Your task to perform on an android device: turn off airplane mode Image 0: 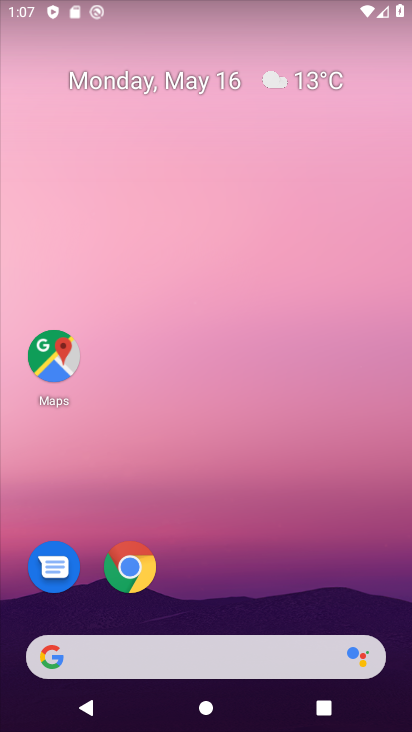
Step 0: drag from (295, 515) to (207, 124)
Your task to perform on an android device: turn off airplane mode Image 1: 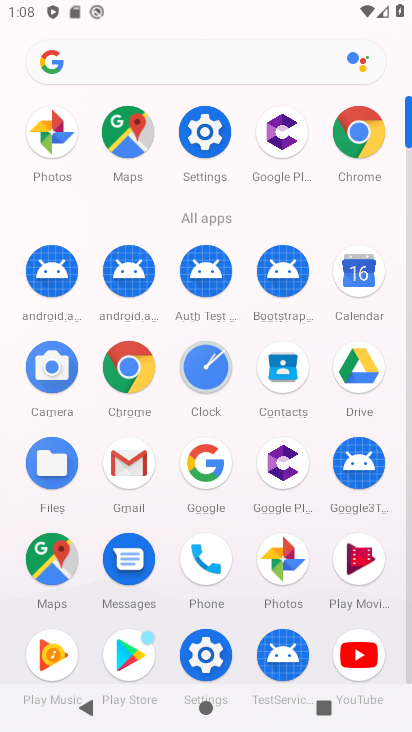
Step 1: click (210, 124)
Your task to perform on an android device: turn off airplane mode Image 2: 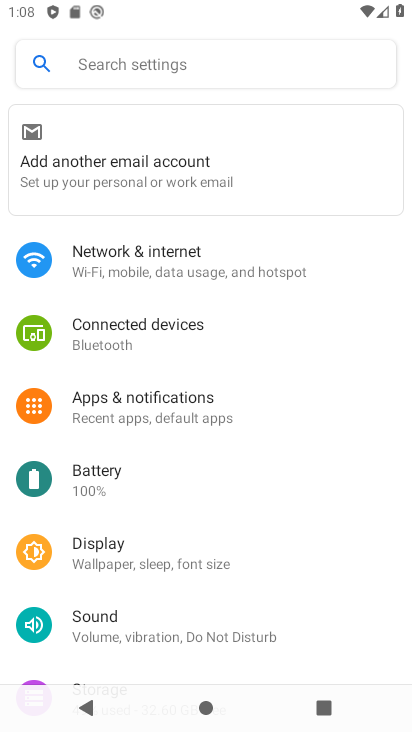
Step 2: click (165, 257)
Your task to perform on an android device: turn off airplane mode Image 3: 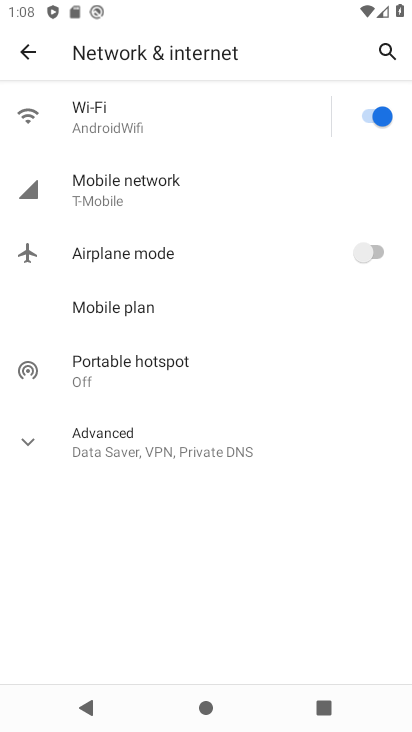
Step 3: task complete